Your task to perform on an android device: Open Youtube and go to "Your channel" Image 0: 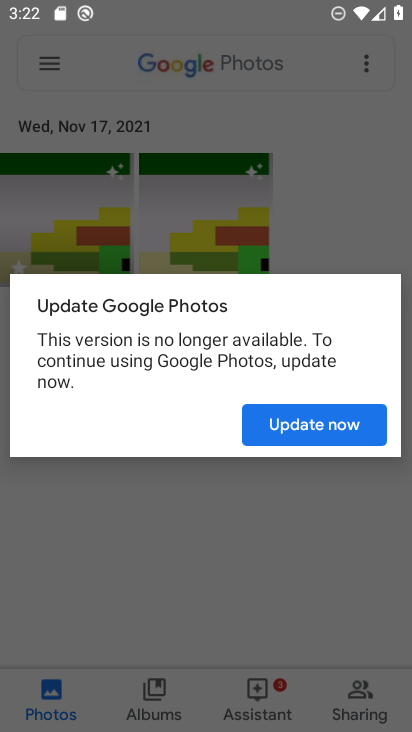
Step 0: press home button
Your task to perform on an android device: Open Youtube and go to "Your channel" Image 1: 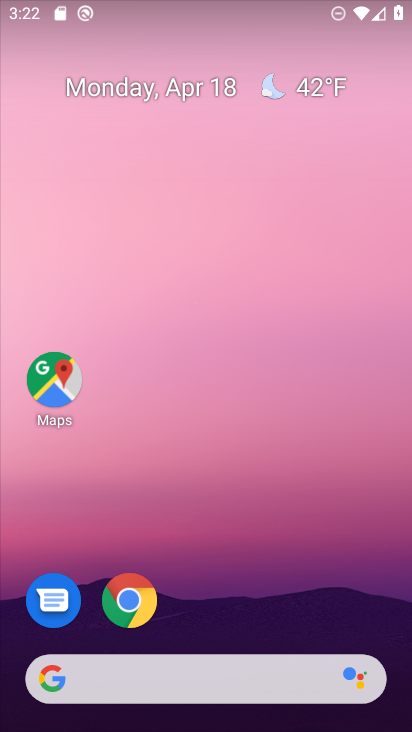
Step 1: drag from (163, 620) to (287, 120)
Your task to perform on an android device: Open Youtube and go to "Your channel" Image 2: 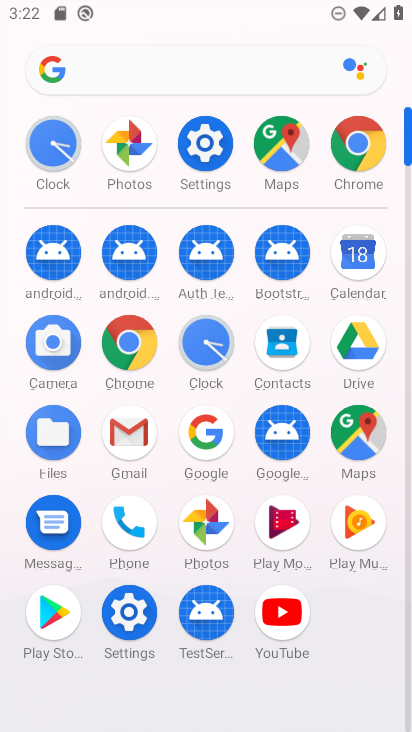
Step 2: click (288, 613)
Your task to perform on an android device: Open Youtube and go to "Your channel" Image 3: 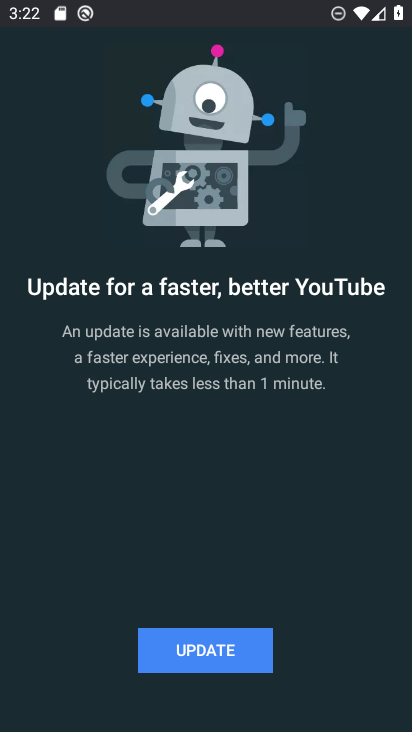
Step 3: click (242, 654)
Your task to perform on an android device: Open Youtube and go to "Your channel" Image 4: 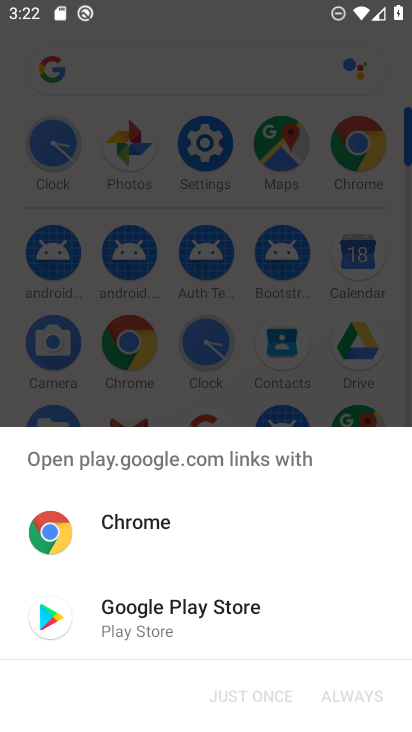
Step 4: click (181, 614)
Your task to perform on an android device: Open Youtube and go to "Your channel" Image 5: 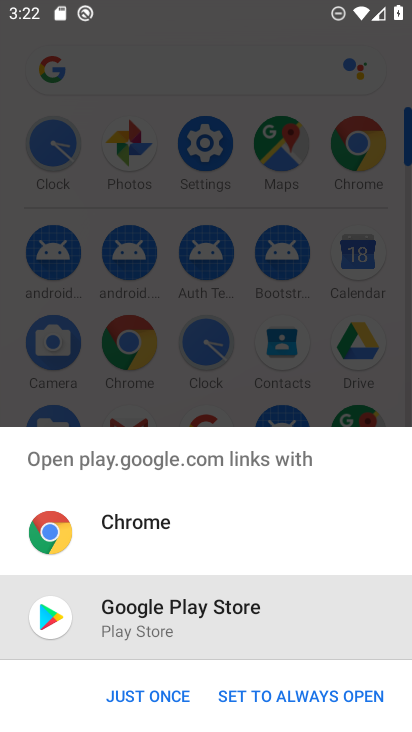
Step 5: click (162, 694)
Your task to perform on an android device: Open Youtube and go to "Your channel" Image 6: 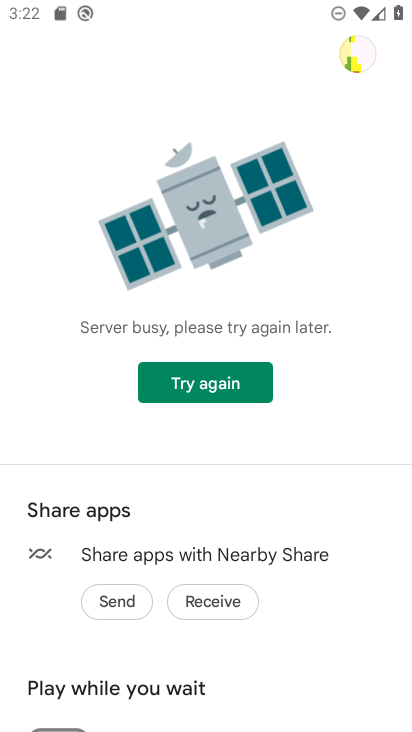
Step 6: task complete